Your task to perform on an android device: Go to Google maps Image 0: 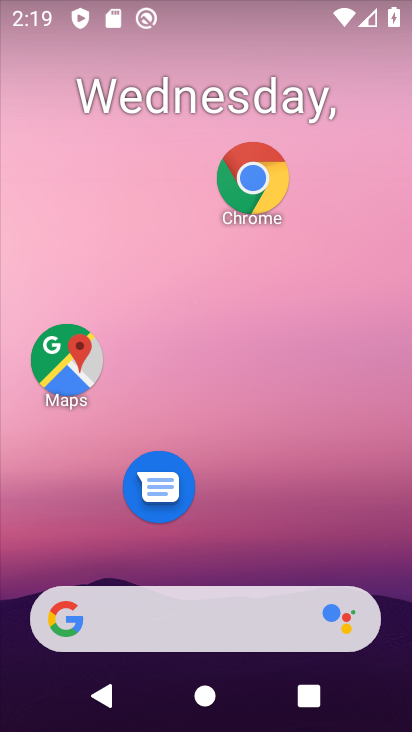
Step 0: drag from (283, 541) to (249, 99)
Your task to perform on an android device: Go to Google maps Image 1: 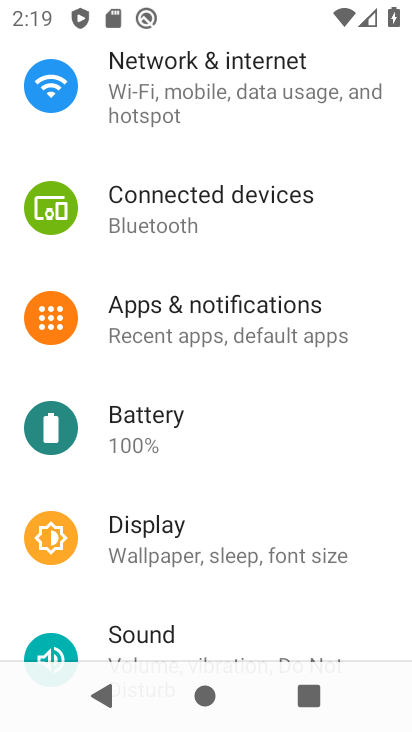
Step 1: press home button
Your task to perform on an android device: Go to Google maps Image 2: 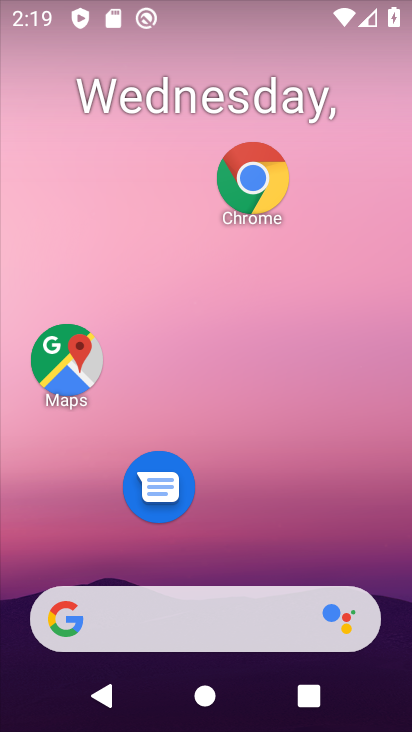
Step 2: drag from (253, 554) to (230, 0)
Your task to perform on an android device: Go to Google maps Image 3: 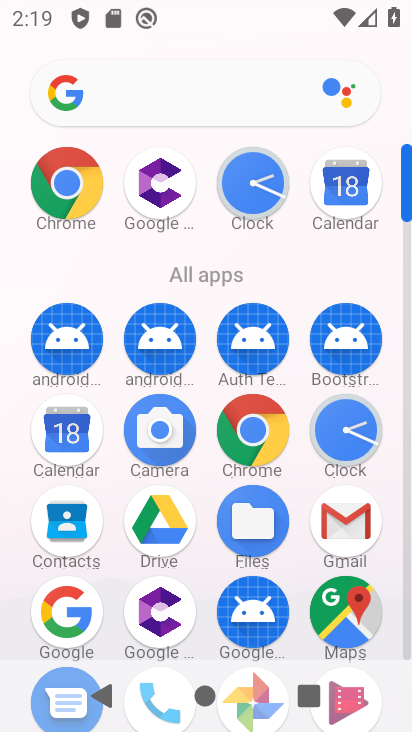
Step 3: click (355, 620)
Your task to perform on an android device: Go to Google maps Image 4: 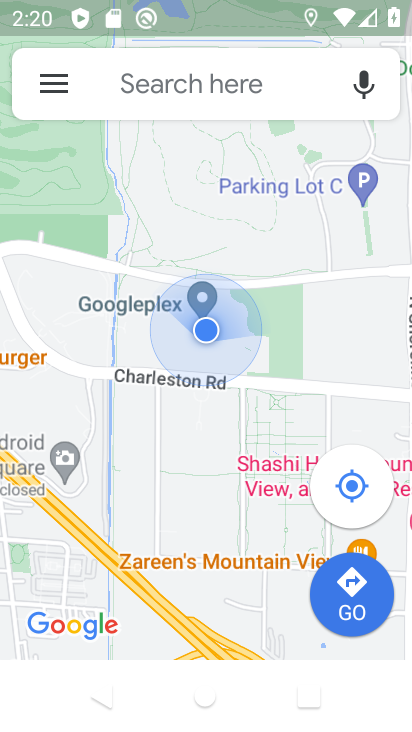
Step 4: task complete